Your task to perform on an android device: add a contact in the contacts app Image 0: 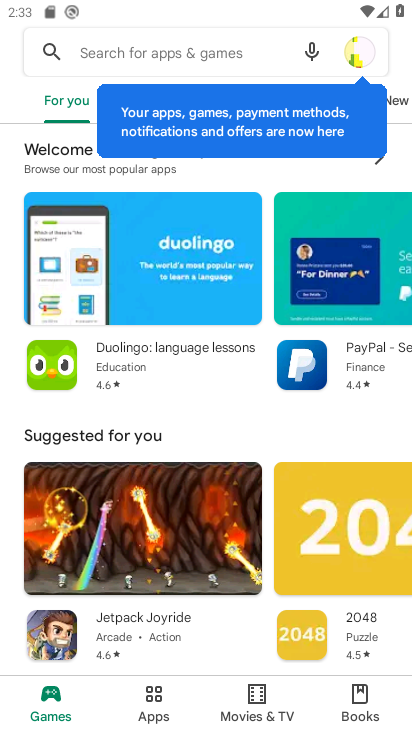
Step 0: press home button
Your task to perform on an android device: add a contact in the contacts app Image 1: 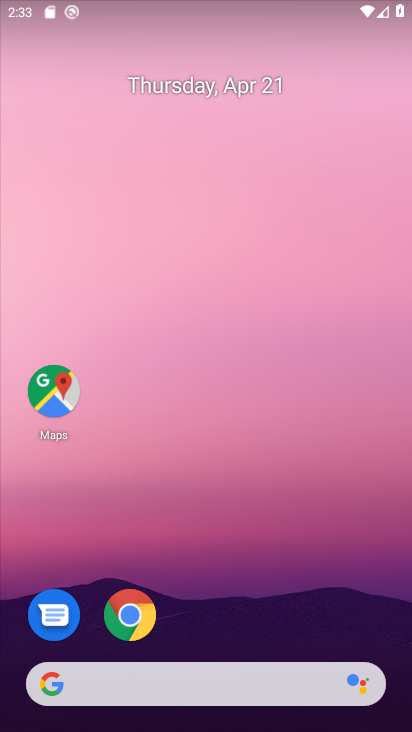
Step 1: drag from (280, 646) to (268, 262)
Your task to perform on an android device: add a contact in the contacts app Image 2: 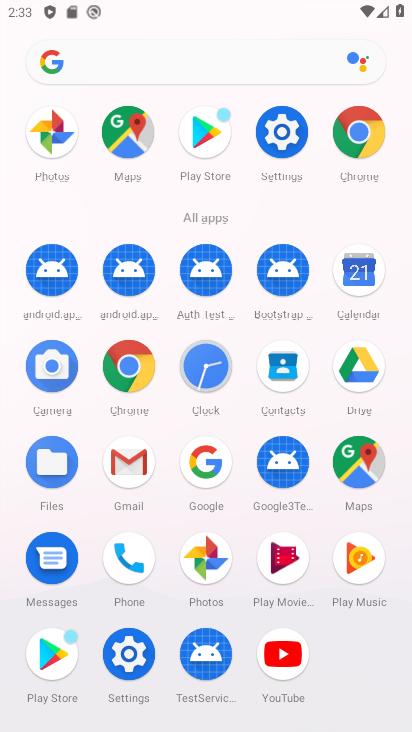
Step 2: click (281, 388)
Your task to perform on an android device: add a contact in the contacts app Image 3: 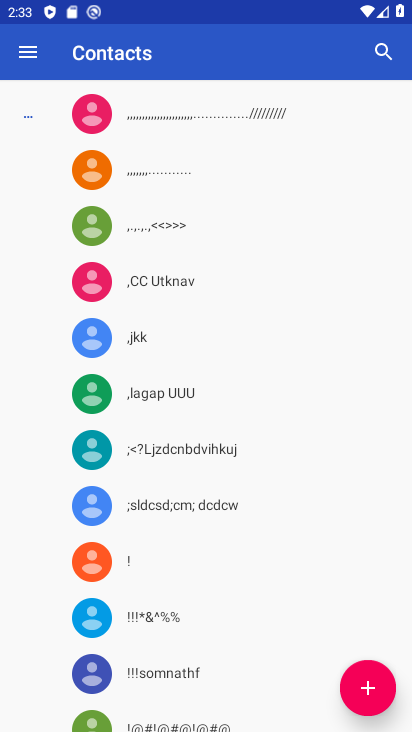
Step 3: click (380, 677)
Your task to perform on an android device: add a contact in the contacts app Image 4: 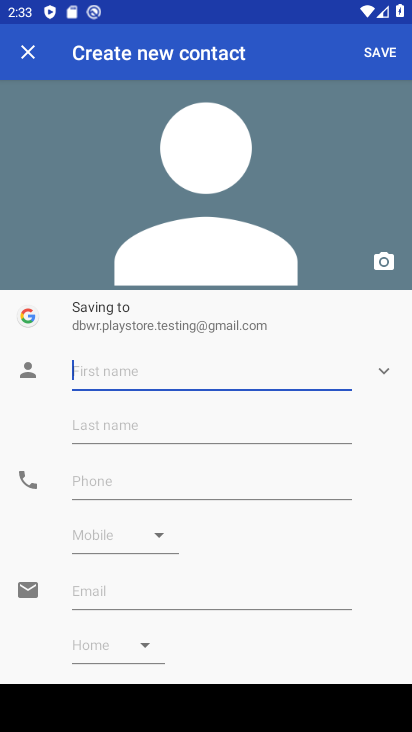
Step 4: type ","
Your task to perform on an android device: add a contact in the contacts app Image 5: 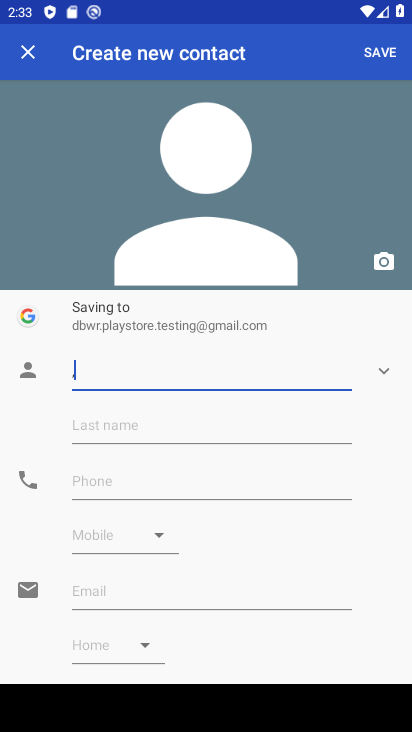
Step 5: click (135, 465)
Your task to perform on an android device: add a contact in the contacts app Image 6: 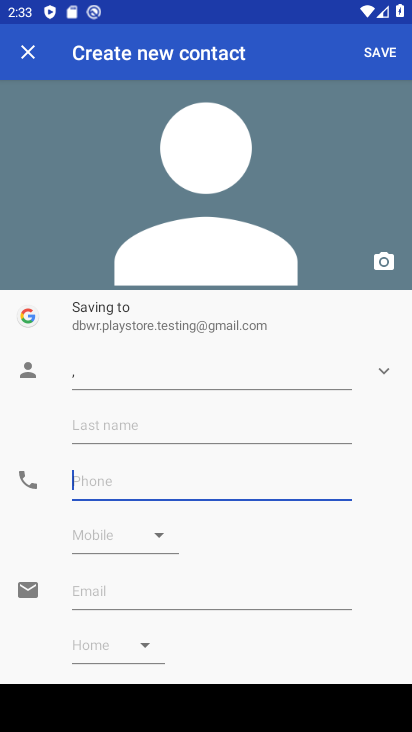
Step 6: type "765456789"
Your task to perform on an android device: add a contact in the contacts app Image 7: 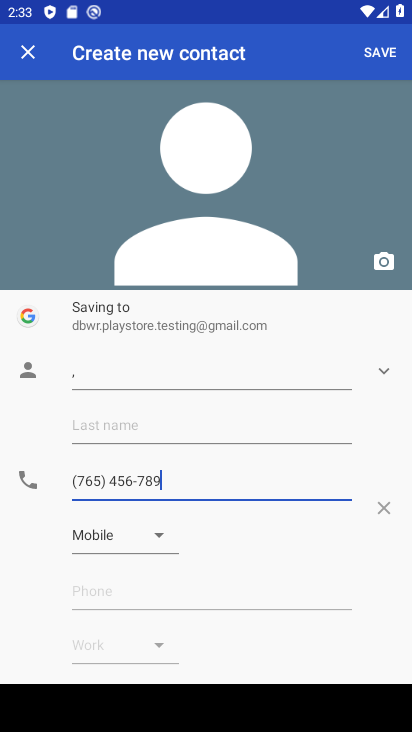
Step 7: type ""
Your task to perform on an android device: add a contact in the contacts app Image 8: 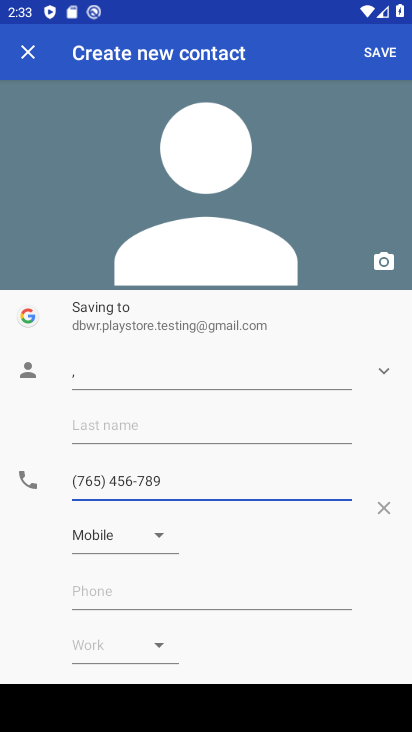
Step 8: click (371, 40)
Your task to perform on an android device: add a contact in the contacts app Image 9: 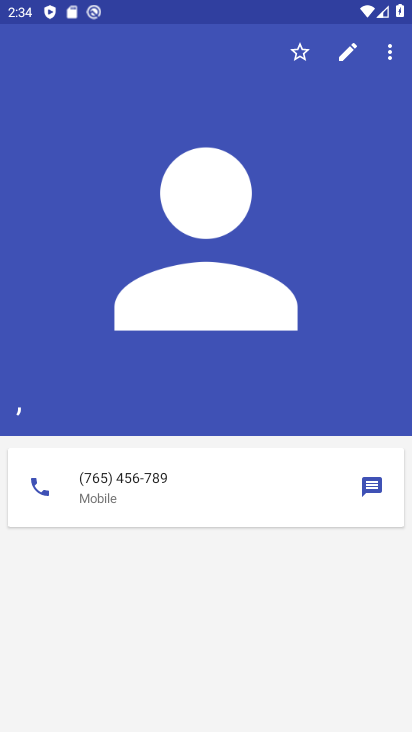
Step 9: task complete